Your task to perform on an android device: change the clock display to digital Image 0: 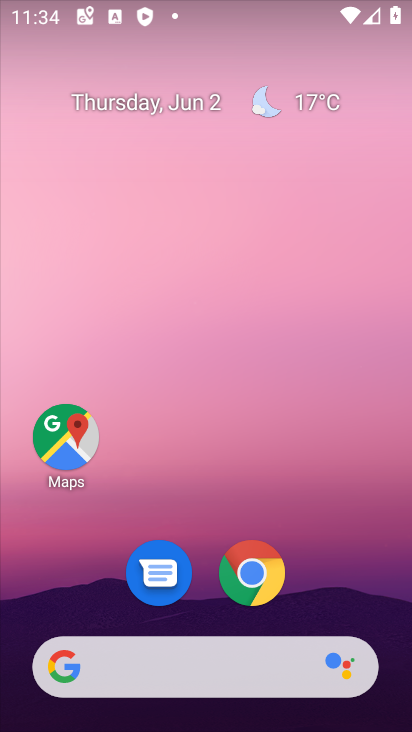
Step 0: drag from (387, 590) to (216, 96)
Your task to perform on an android device: change the clock display to digital Image 1: 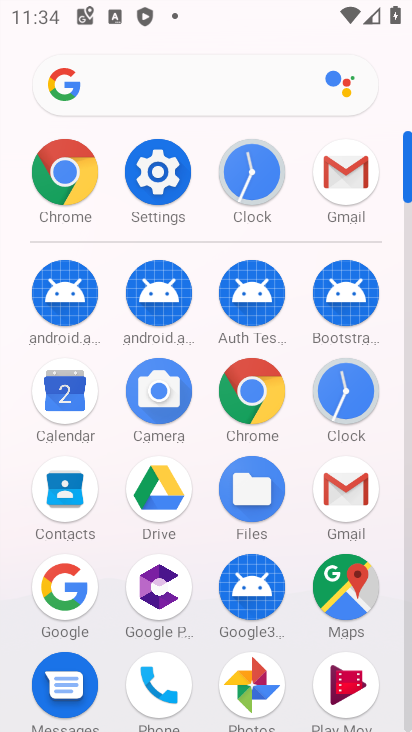
Step 1: click (248, 189)
Your task to perform on an android device: change the clock display to digital Image 2: 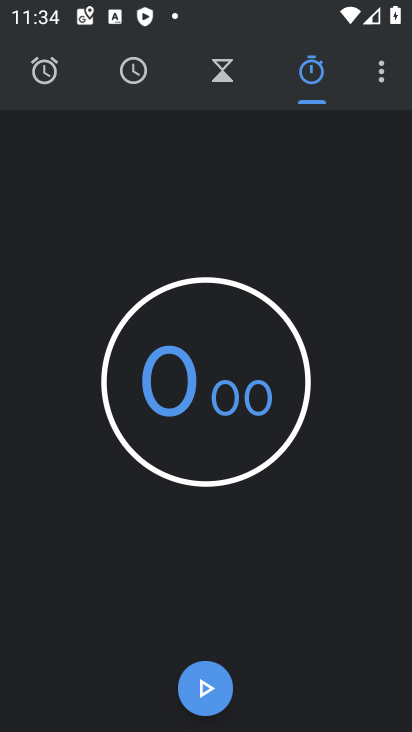
Step 2: click (375, 71)
Your task to perform on an android device: change the clock display to digital Image 3: 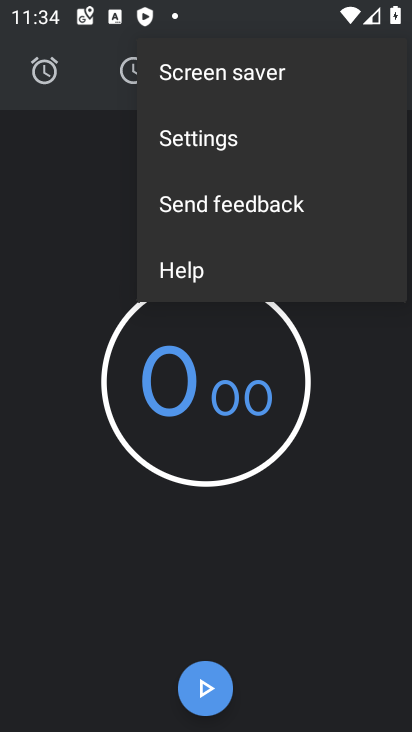
Step 3: click (190, 128)
Your task to perform on an android device: change the clock display to digital Image 4: 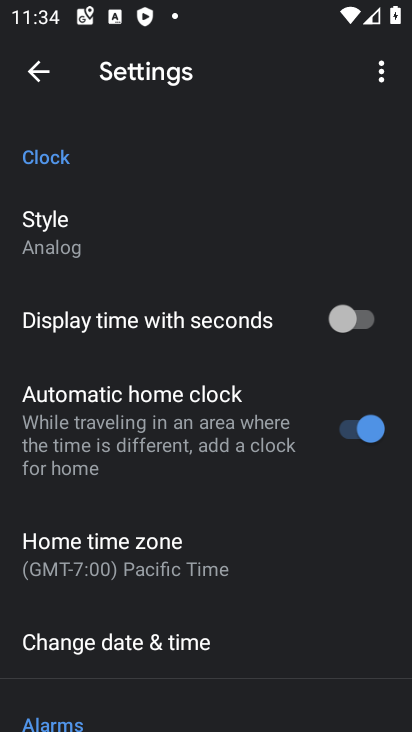
Step 4: click (56, 234)
Your task to perform on an android device: change the clock display to digital Image 5: 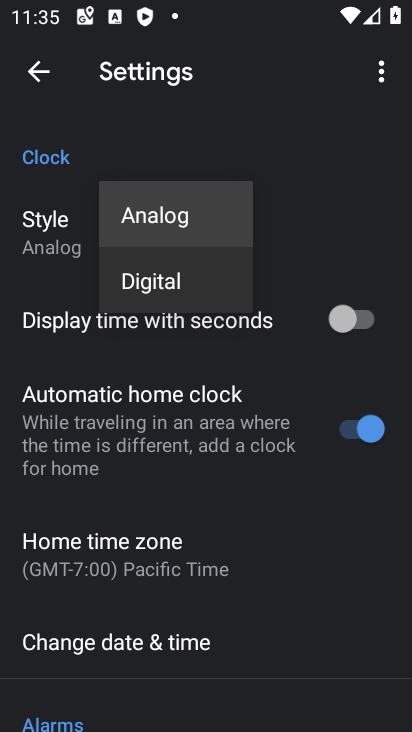
Step 5: click (154, 290)
Your task to perform on an android device: change the clock display to digital Image 6: 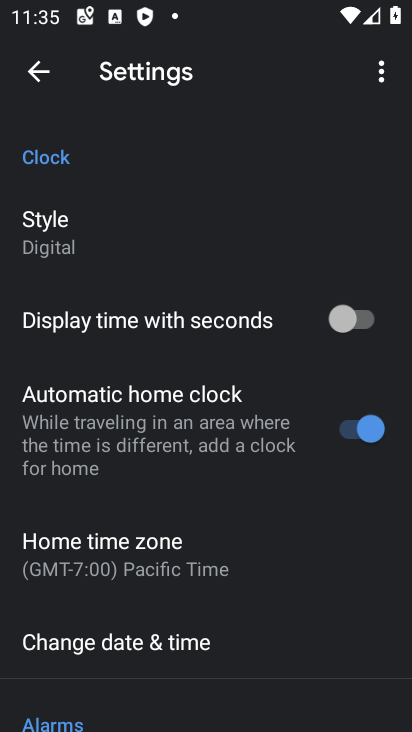
Step 6: task complete